Your task to perform on an android device: Open notification settings Image 0: 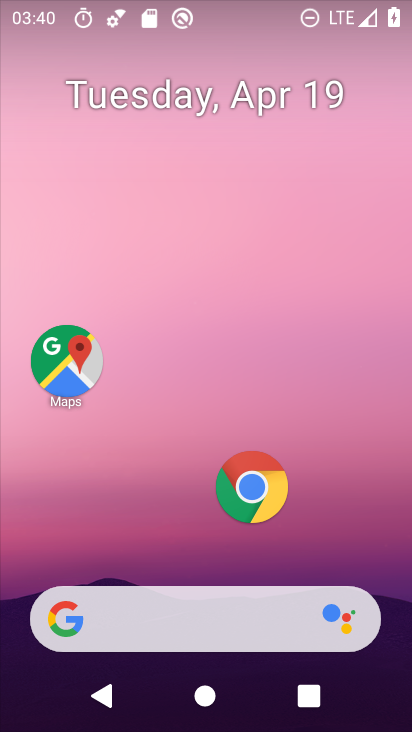
Step 0: drag from (186, 382) to (315, 0)
Your task to perform on an android device: Open notification settings Image 1: 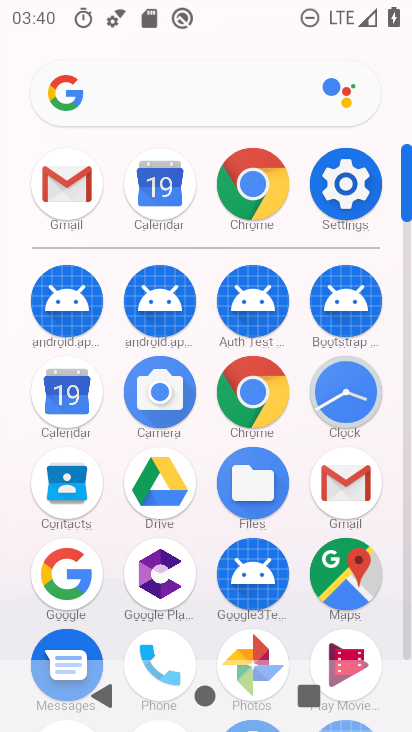
Step 1: click (352, 209)
Your task to perform on an android device: Open notification settings Image 2: 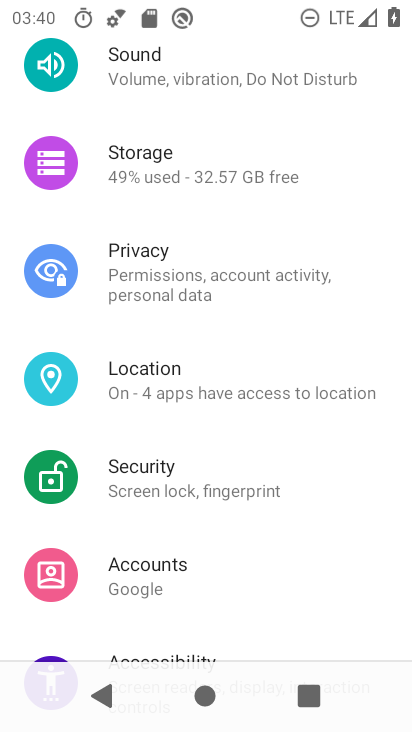
Step 2: drag from (233, 174) to (183, 713)
Your task to perform on an android device: Open notification settings Image 3: 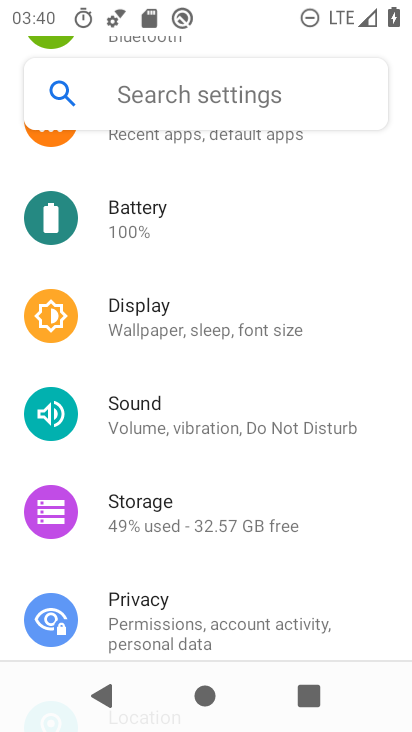
Step 3: drag from (246, 307) to (227, 612)
Your task to perform on an android device: Open notification settings Image 4: 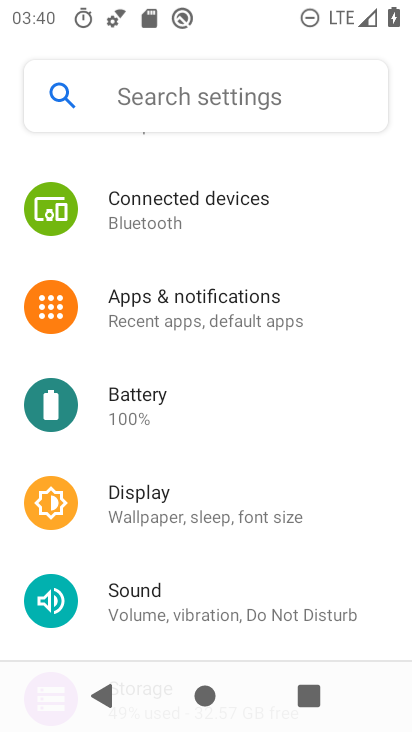
Step 4: click (209, 333)
Your task to perform on an android device: Open notification settings Image 5: 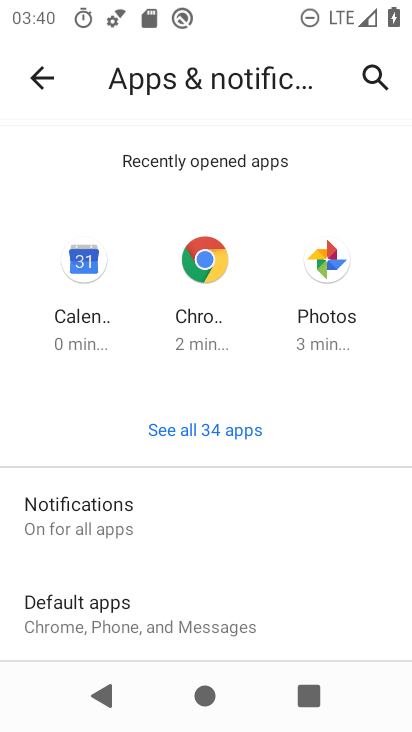
Step 5: task complete